Your task to perform on an android device: Empty the shopping cart on bestbuy. Image 0: 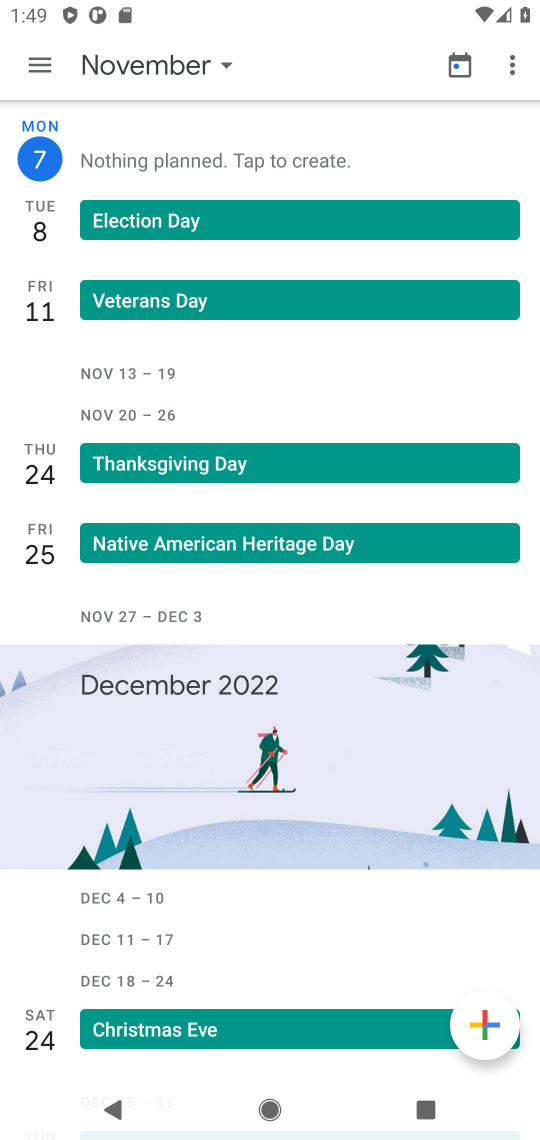
Step 0: press home button
Your task to perform on an android device: Empty the shopping cart on bestbuy. Image 1: 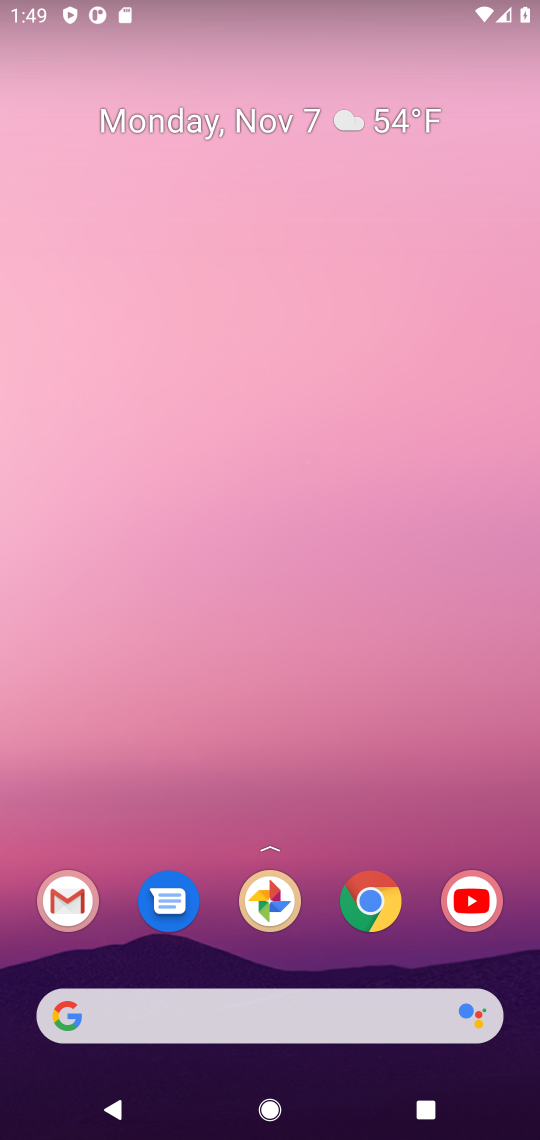
Step 1: click (365, 916)
Your task to perform on an android device: Empty the shopping cart on bestbuy. Image 2: 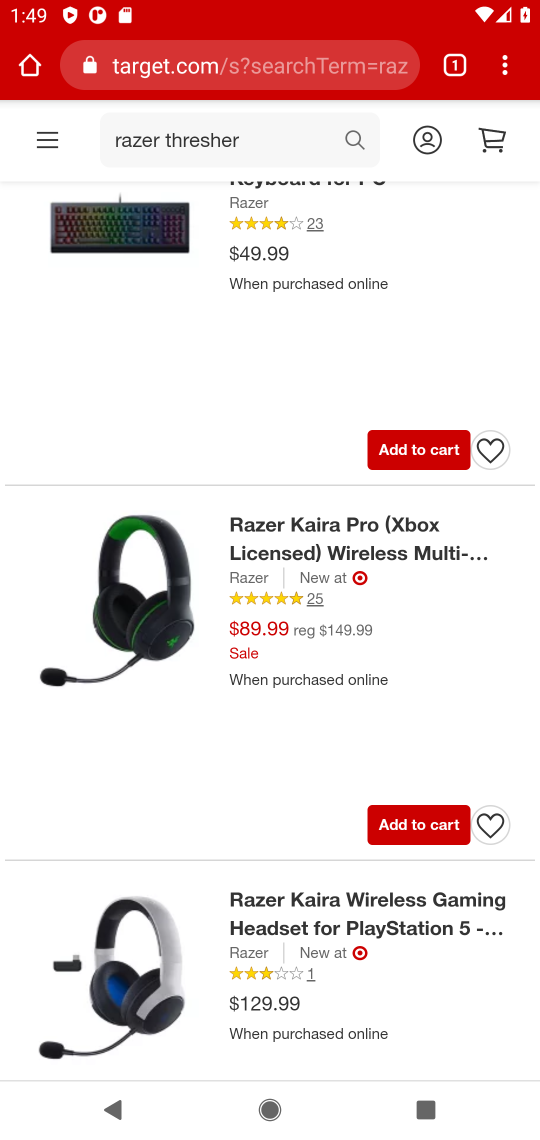
Step 2: click (185, 66)
Your task to perform on an android device: Empty the shopping cart on bestbuy. Image 3: 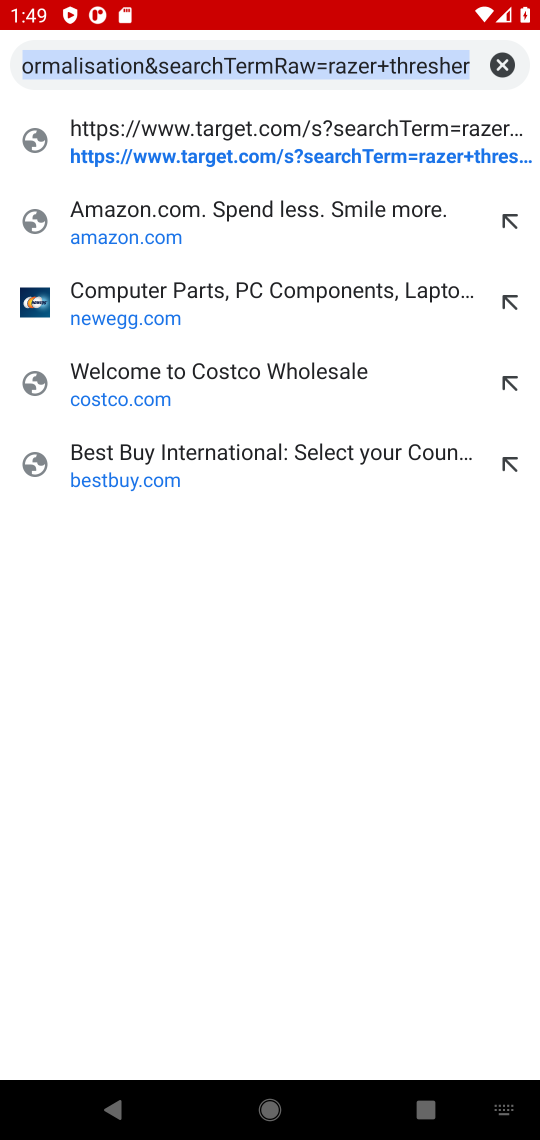
Step 3: click (108, 454)
Your task to perform on an android device: Empty the shopping cart on bestbuy. Image 4: 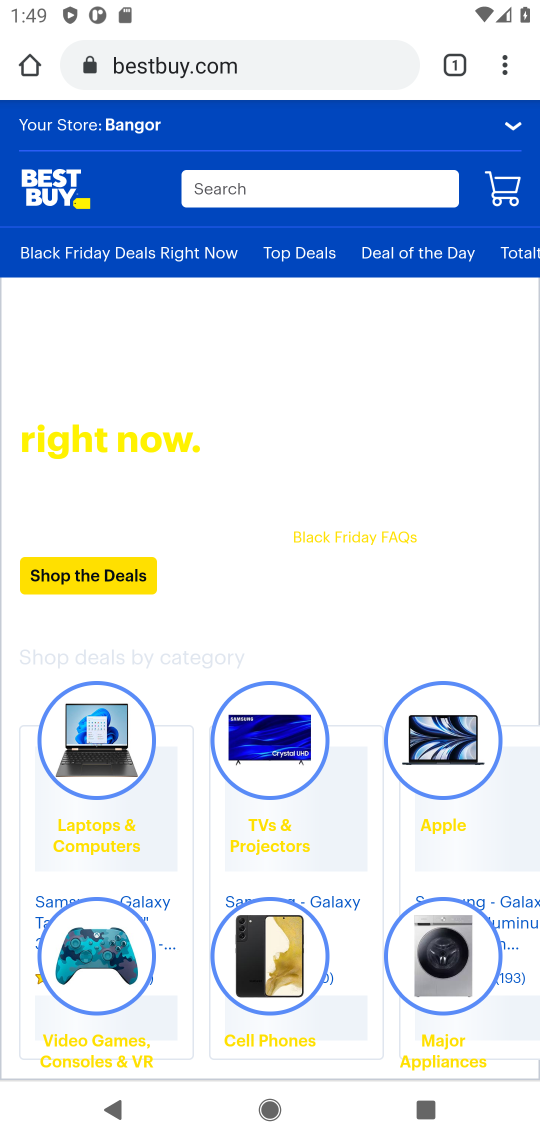
Step 4: click (504, 190)
Your task to perform on an android device: Empty the shopping cart on bestbuy. Image 5: 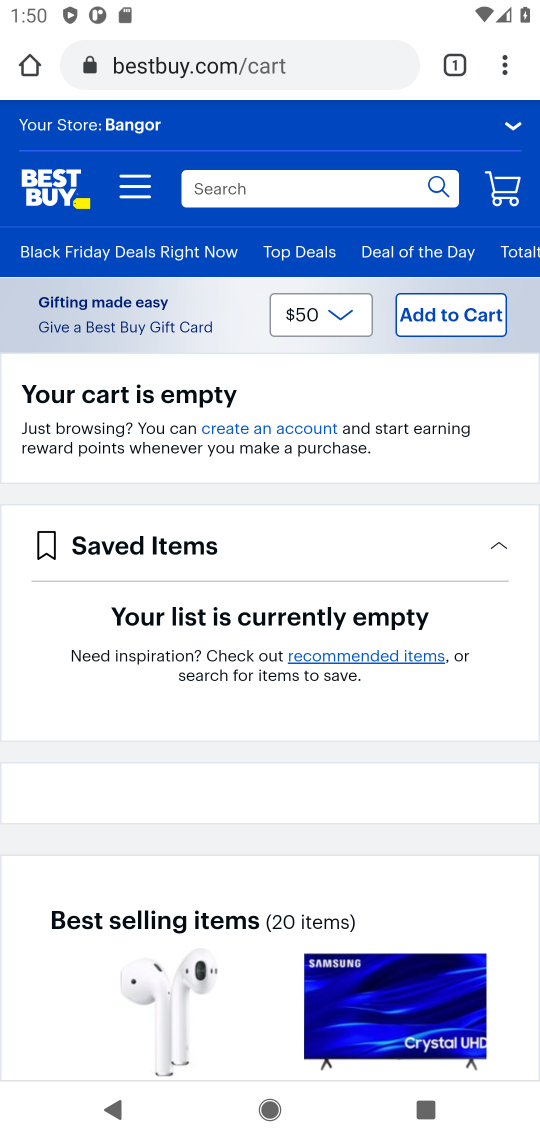
Step 5: task complete